Your task to perform on an android device: find which apps use the phone's location Image 0: 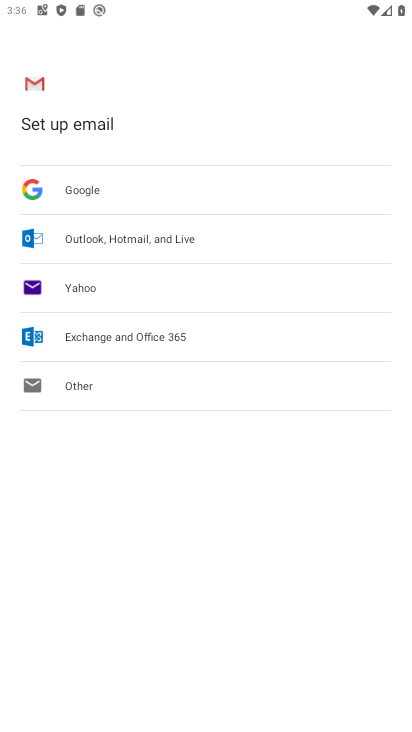
Step 0: press home button
Your task to perform on an android device: find which apps use the phone's location Image 1: 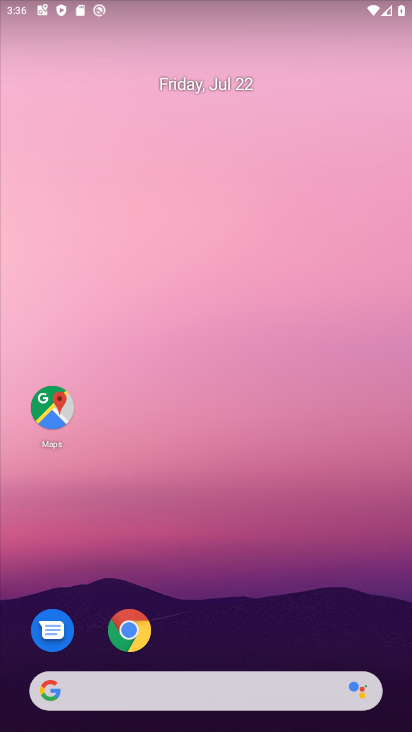
Step 1: task complete